Your task to perform on an android device: Go to location settings Image 0: 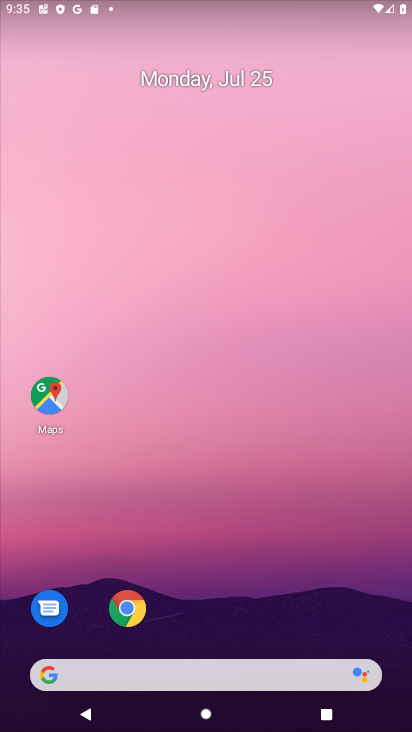
Step 0: drag from (173, 620) to (208, 63)
Your task to perform on an android device: Go to location settings Image 1: 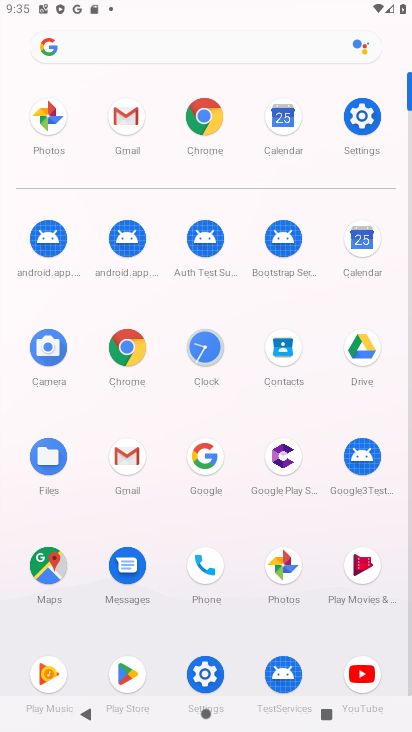
Step 1: click (360, 119)
Your task to perform on an android device: Go to location settings Image 2: 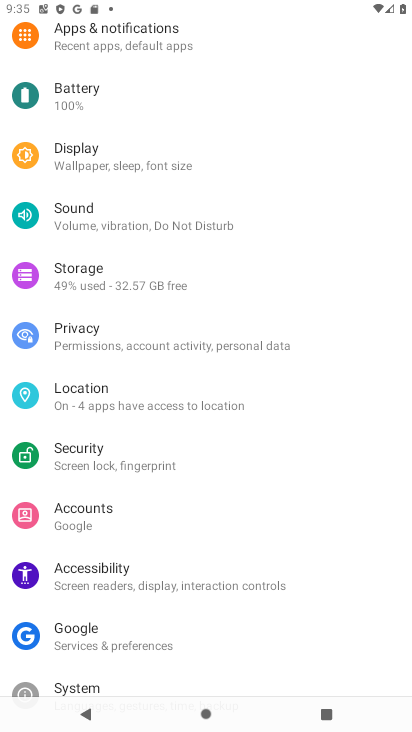
Step 2: click (108, 396)
Your task to perform on an android device: Go to location settings Image 3: 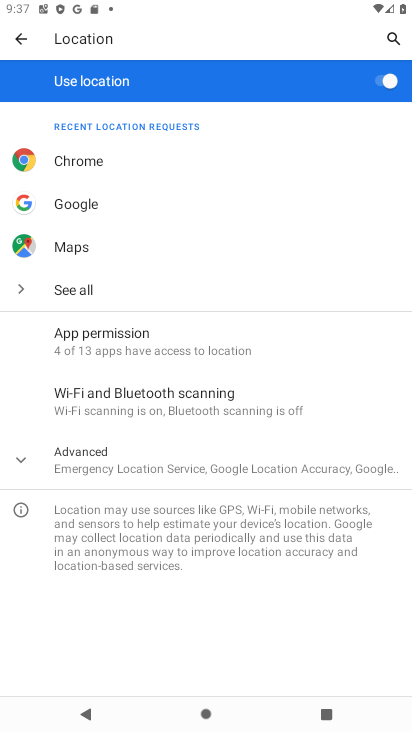
Step 3: task complete